Your task to perform on an android device: Open Chrome and go to settings Image 0: 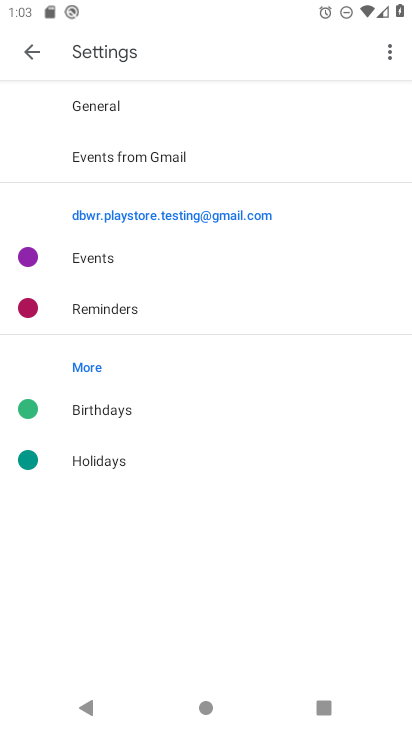
Step 0: press home button
Your task to perform on an android device: Open Chrome and go to settings Image 1: 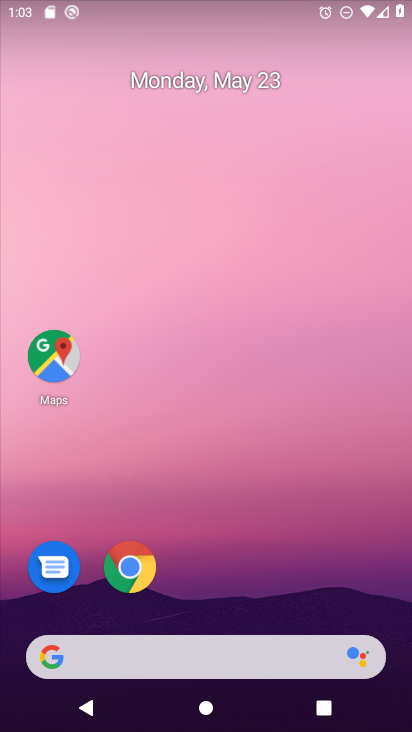
Step 1: click (129, 566)
Your task to perform on an android device: Open Chrome and go to settings Image 2: 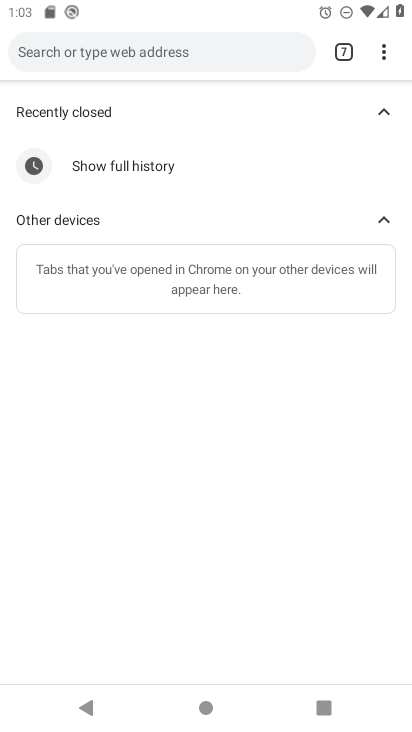
Step 2: click (392, 47)
Your task to perform on an android device: Open Chrome and go to settings Image 3: 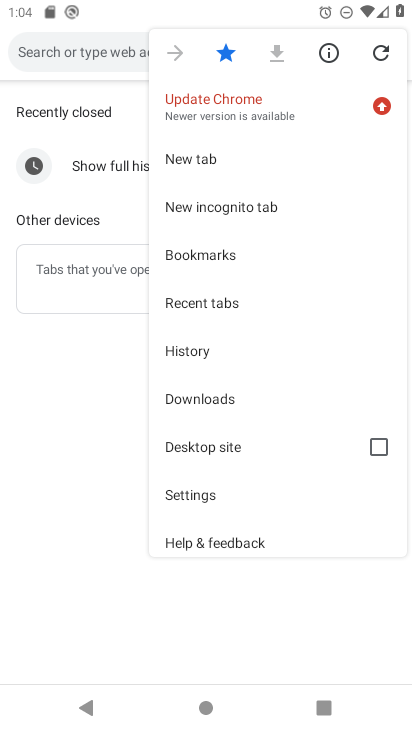
Step 3: click (183, 487)
Your task to perform on an android device: Open Chrome and go to settings Image 4: 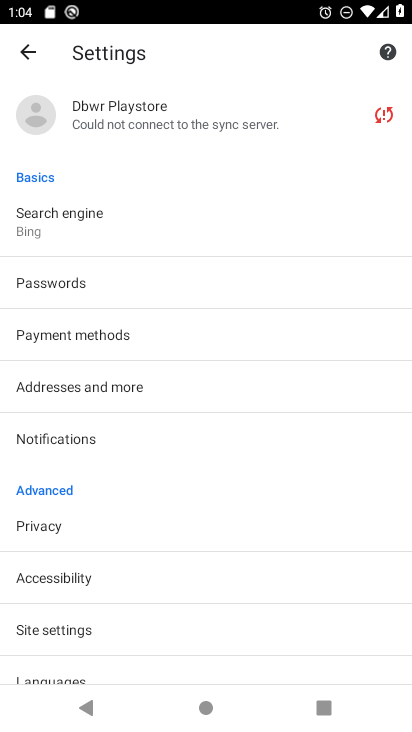
Step 4: task complete